Your task to perform on an android device: Show me popular games on the Play Store Image 0: 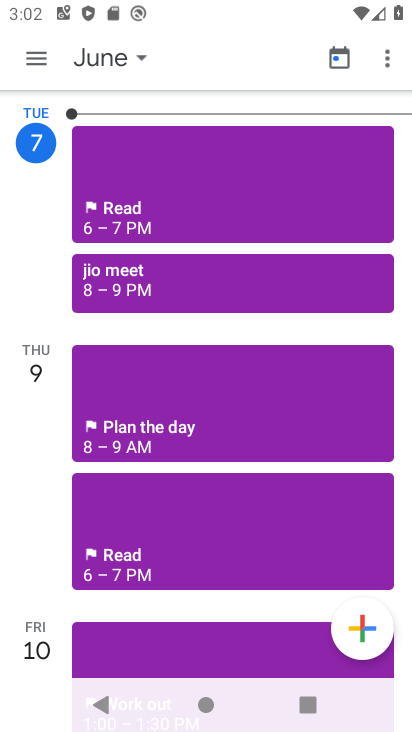
Step 0: drag from (41, 363) to (243, 99)
Your task to perform on an android device: Show me popular games on the Play Store Image 1: 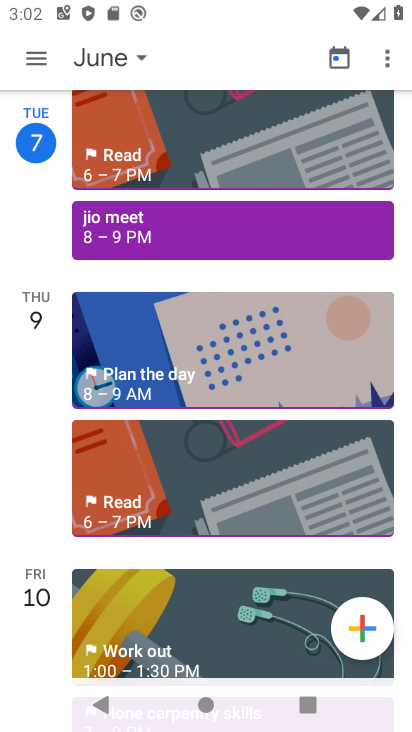
Step 1: press home button
Your task to perform on an android device: Show me popular games on the Play Store Image 2: 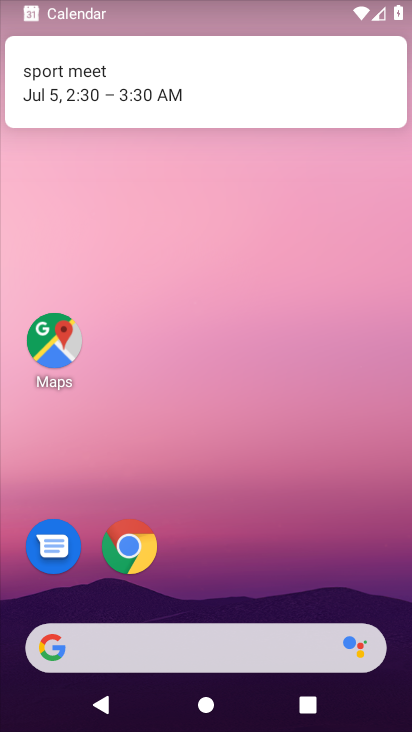
Step 2: drag from (175, 730) to (313, 186)
Your task to perform on an android device: Show me popular games on the Play Store Image 3: 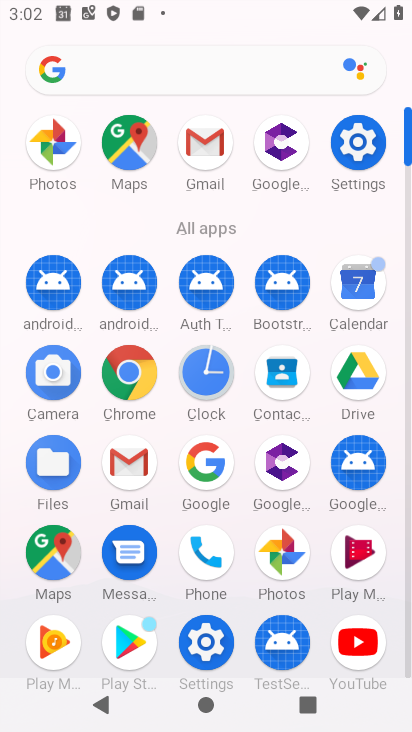
Step 3: click (140, 622)
Your task to perform on an android device: Show me popular games on the Play Store Image 4: 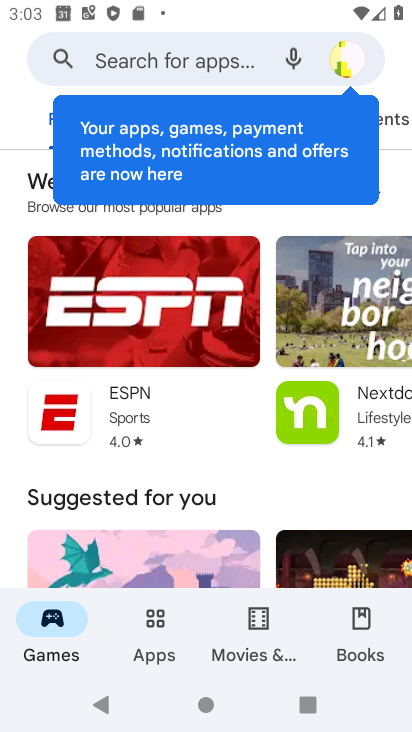
Step 4: task complete